Your task to perform on an android device: open app "PUBG MOBILE" Image 0: 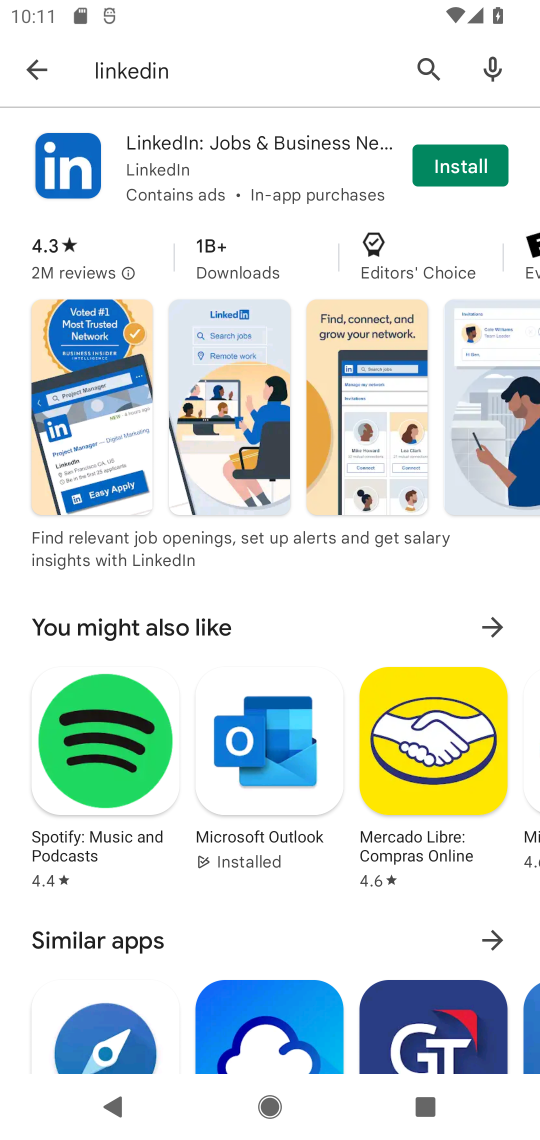
Step 0: click (203, 58)
Your task to perform on an android device: open app "PUBG MOBILE" Image 1: 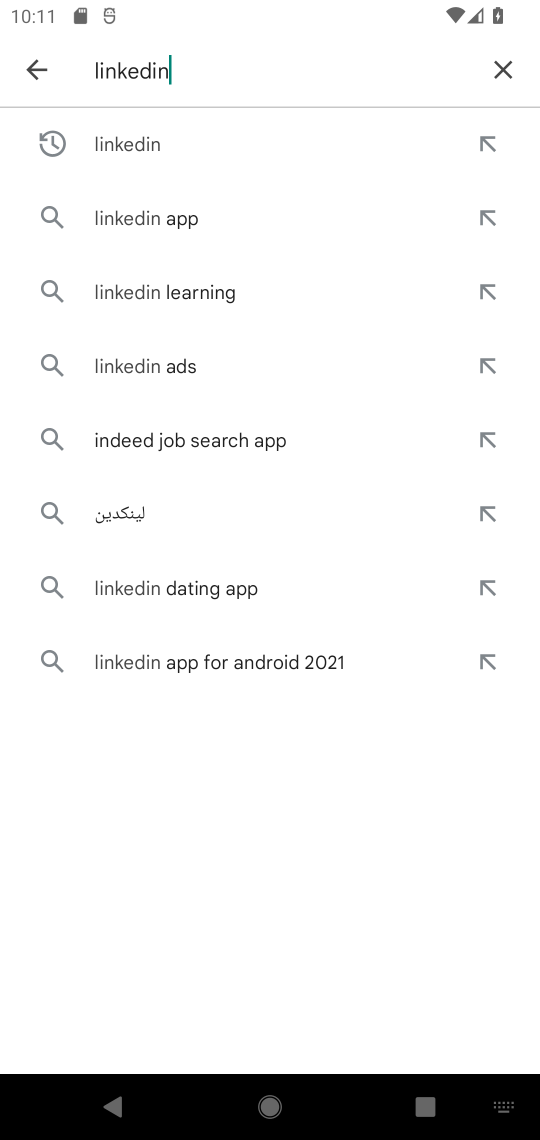
Step 1: click (499, 69)
Your task to perform on an android device: open app "PUBG MOBILE" Image 2: 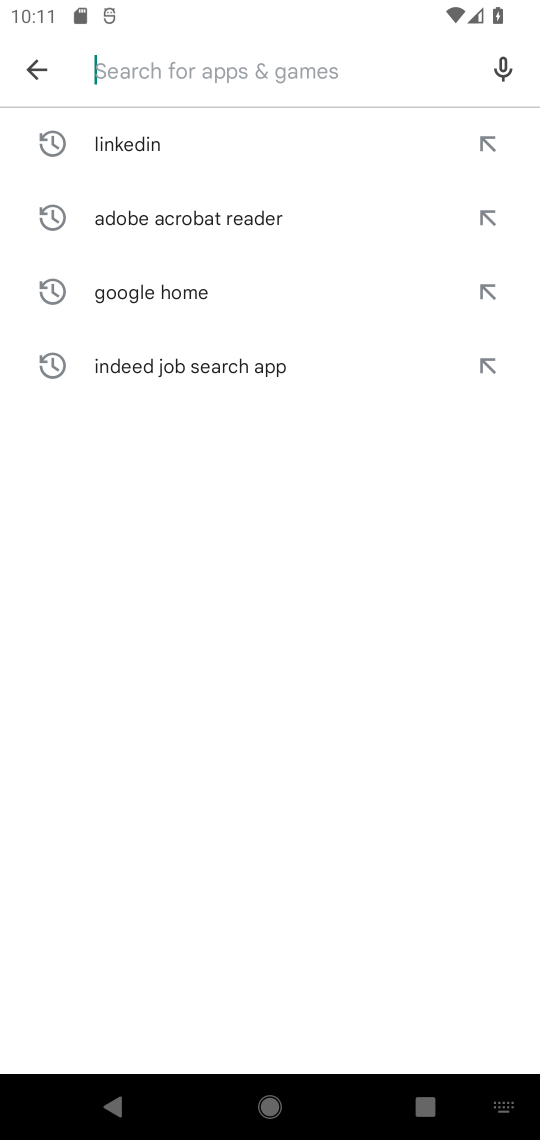
Step 2: type "PuBG "
Your task to perform on an android device: open app "PUBG MOBILE" Image 3: 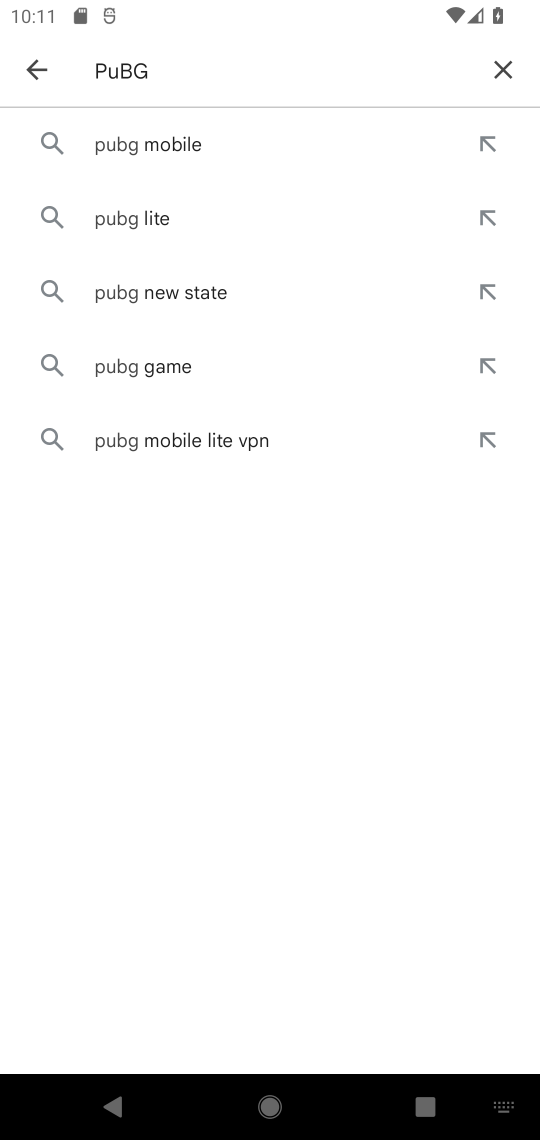
Step 3: click (176, 142)
Your task to perform on an android device: open app "PUBG MOBILE" Image 4: 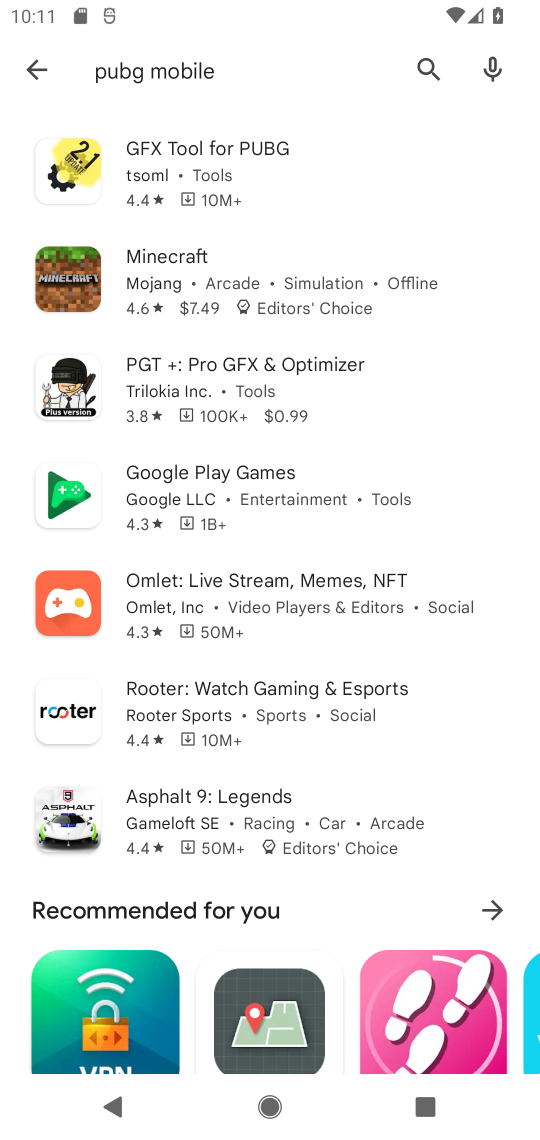
Step 4: task complete